Your task to perform on an android device: Open the Play Movies app and select the watchlist tab. Image 0: 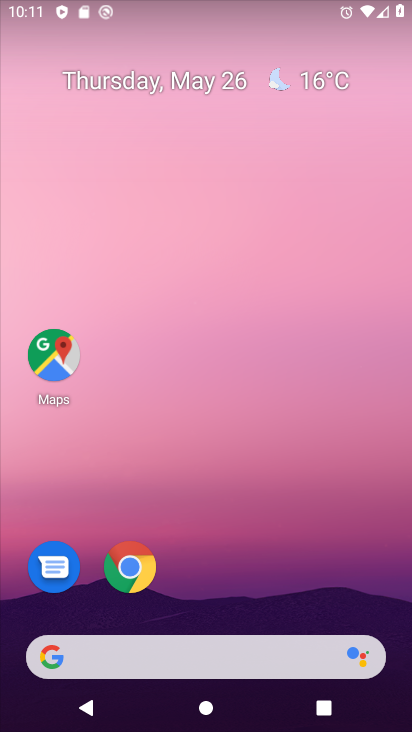
Step 0: drag from (383, 632) to (321, 244)
Your task to perform on an android device: Open the Play Movies app and select the watchlist tab. Image 1: 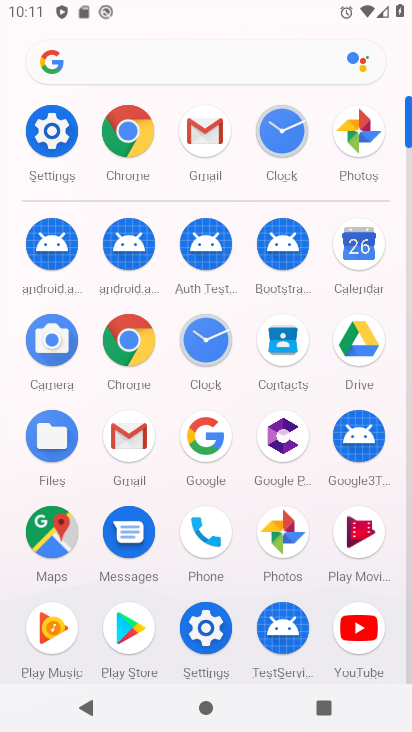
Step 1: click (375, 533)
Your task to perform on an android device: Open the Play Movies app and select the watchlist tab. Image 2: 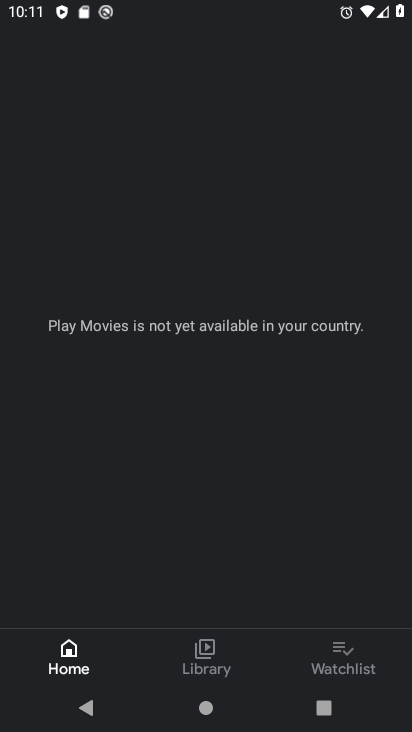
Step 2: click (373, 664)
Your task to perform on an android device: Open the Play Movies app and select the watchlist tab. Image 3: 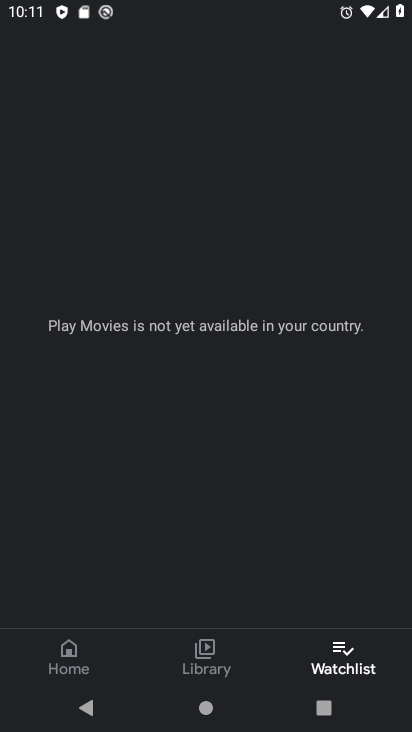
Step 3: task complete